Your task to perform on an android device: Open Youtube and go to "Your channel" Image 0: 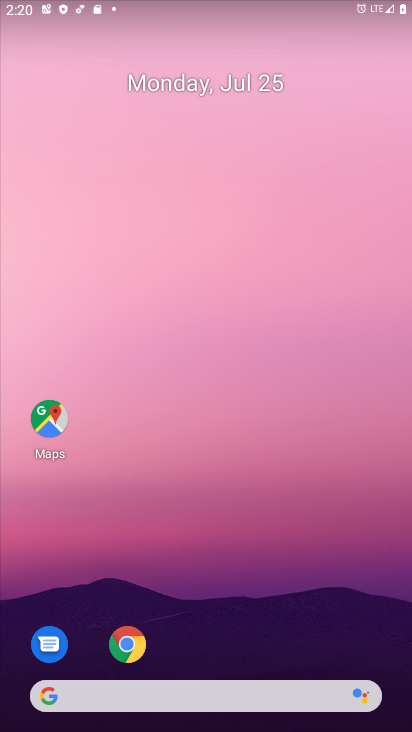
Step 0: drag from (347, 637) to (226, 59)
Your task to perform on an android device: Open Youtube and go to "Your channel" Image 1: 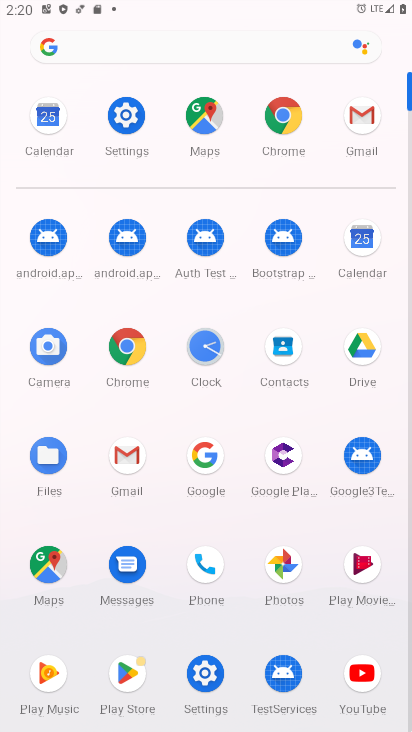
Step 1: click (357, 678)
Your task to perform on an android device: Open Youtube and go to "Your channel" Image 2: 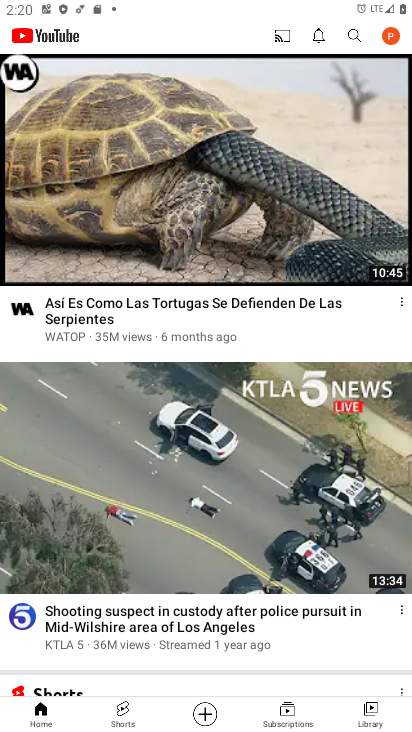
Step 2: click (383, 37)
Your task to perform on an android device: Open Youtube and go to "Your channel" Image 3: 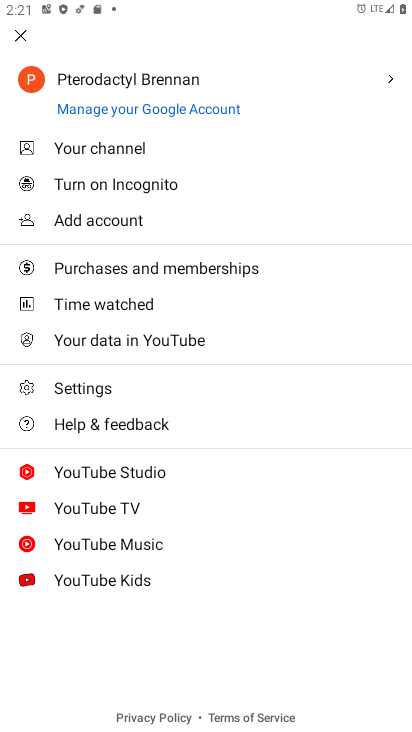
Step 3: click (58, 145)
Your task to perform on an android device: Open Youtube and go to "Your channel" Image 4: 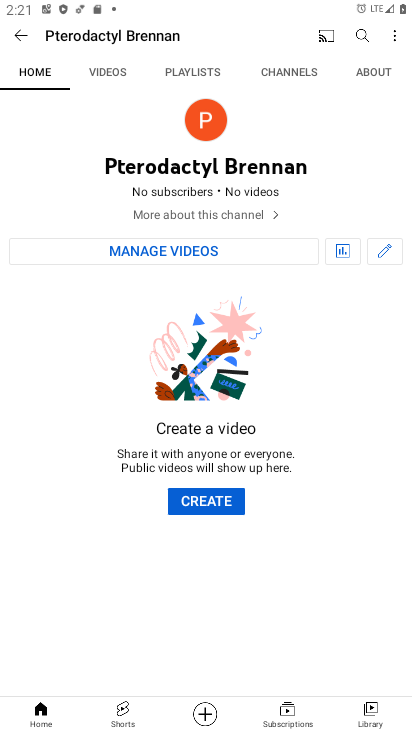
Step 4: task complete